Your task to perform on an android device: allow notifications from all sites in the chrome app Image 0: 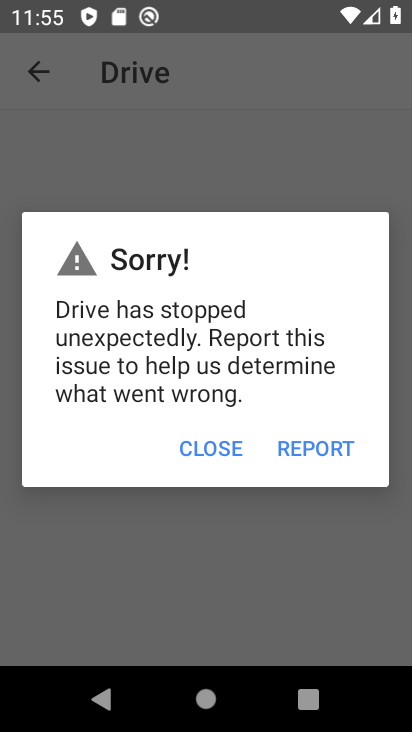
Step 0: press home button
Your task to perform on an android device: allow notifications from all sites in the chrome app Image 1: 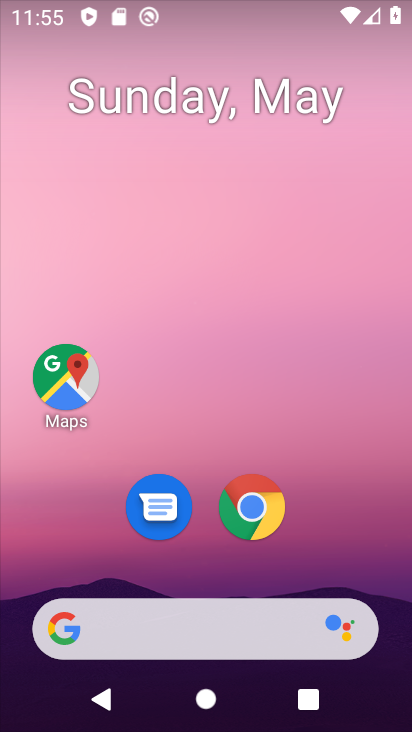
Step 1: click (251, 509)
Your task to perform on an android device: allow notifications from all sites in the chrome app Image 2: 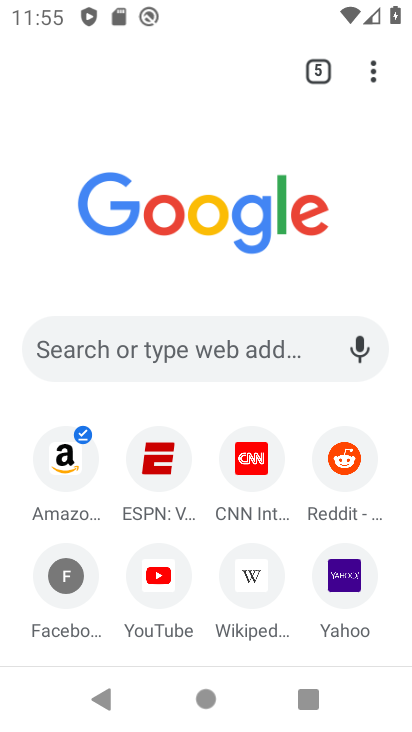
Step 2: click (374, 78)
Your task to perform on an android device: allow notifications from all sites in the chrome app Image 3: 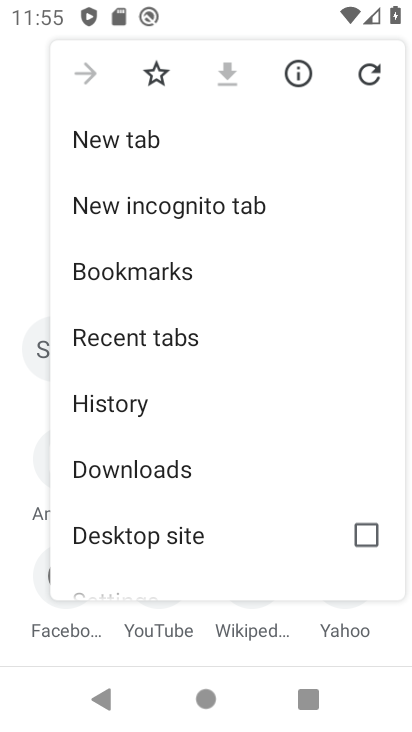
Step 3: drag from (128, 550) to (126, 249)
Your task to perform on an android device: allow notifications from all sites in the chrome app Image 4: 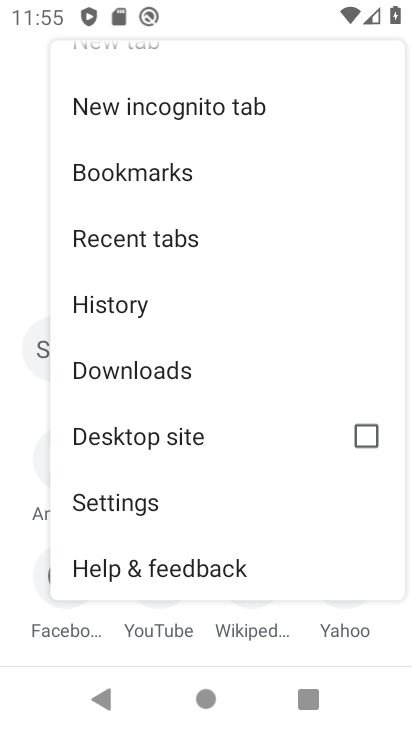
Step 4: click (101, 499)
Your task to perform on an android device: allow notifications from all sites in the chrome app Image 5: 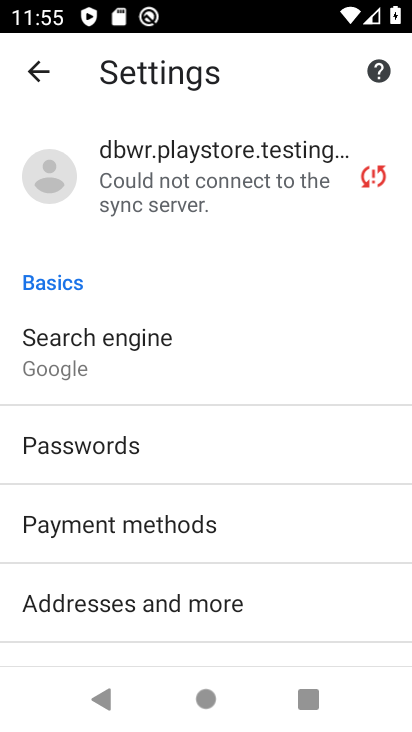
Step 5: drag from (114, 626) to (109, 255)
Your task to perform on an android device: allow notifications from all sites in the chrome app Image 6: 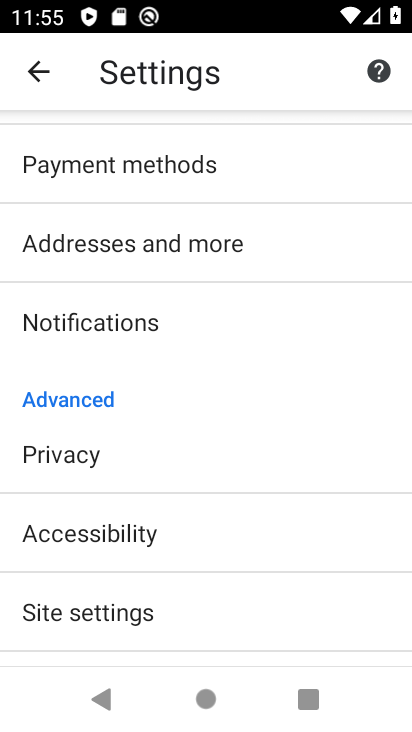
Step 6: drag from (102, 629) to (90, 335)
Your task to perform on an android device: allow notifications from all sites in the chrome app Image 7: 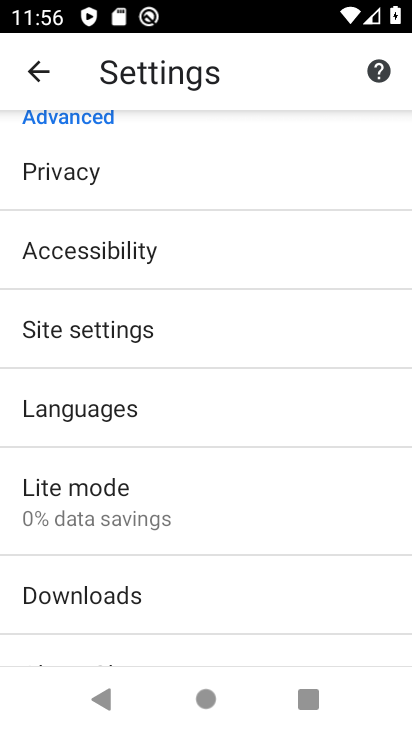
Step 7: drag from (95, 616) to (98, 290)
Your task to perform on an android device: allow notifications from all sites in the chrome app Image 8: 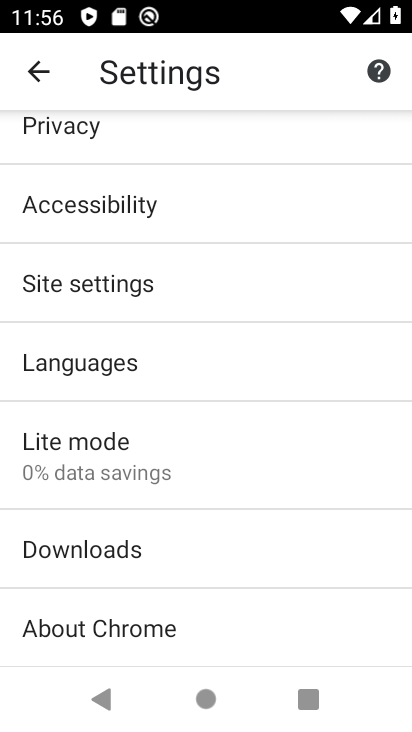
Step 8: drag from (98, 652) to (101, 269)
Your task to perform on an android device: allow notifications from all sites in the chrome app Image 9: 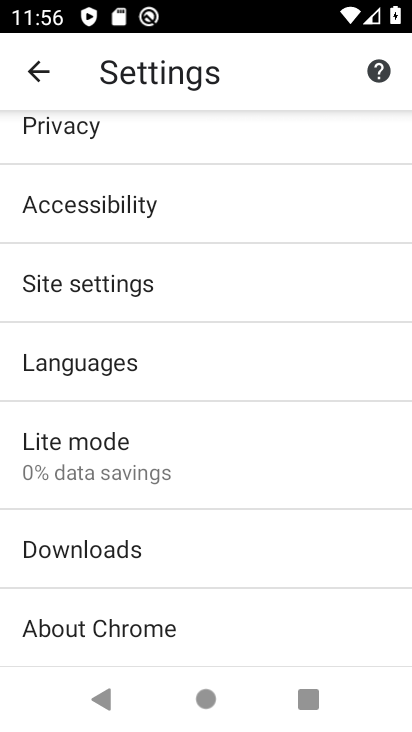
Step 9: click (109, 280)
Your task to perform on an android device: allow notifications from all sites in the chrome app Image 10: 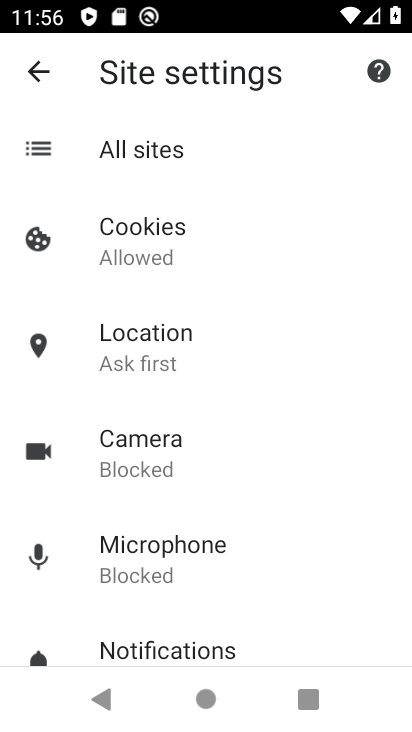
Step 10: drag from (149, 608) to (147, 296)
Your task to perform on an android device: allow notifications from all sites in the chrome app Image 11: 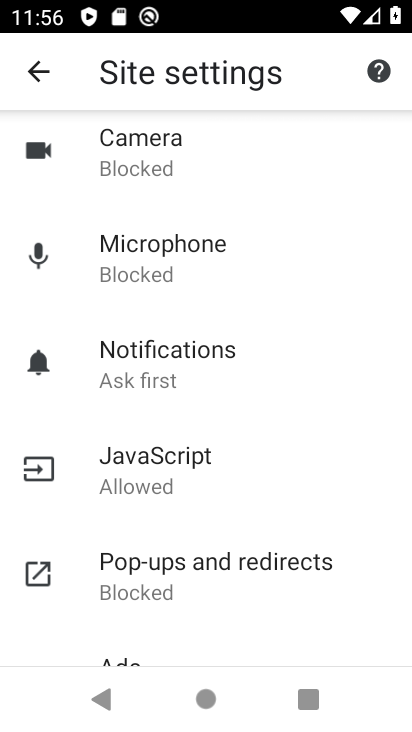
Step 11: click (147, 354)
Your task to perform on an android device: allow notifications from all sites in the chrome app Image 12: 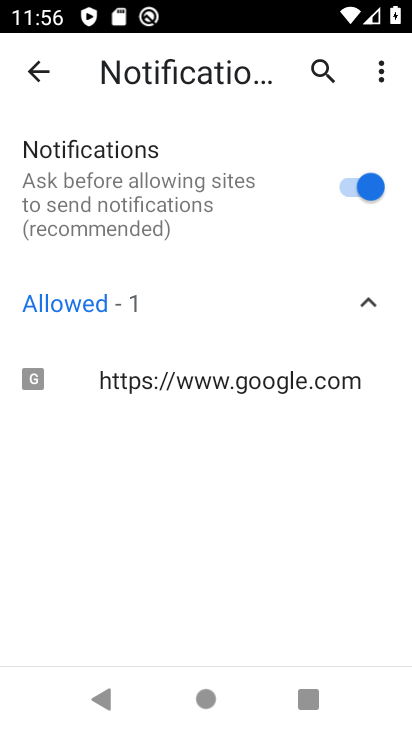
Step 12: task complete